Your task to perform on an android device: What is the news today? Image 0: 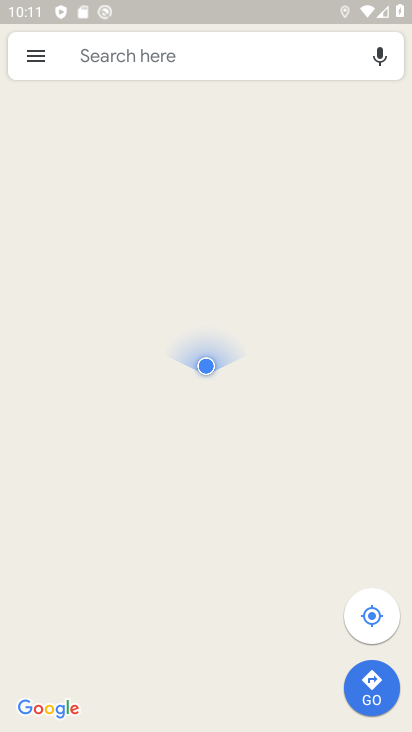
Step 0: press home button
Your task to perform on an android device: What is the news today? Image 1: 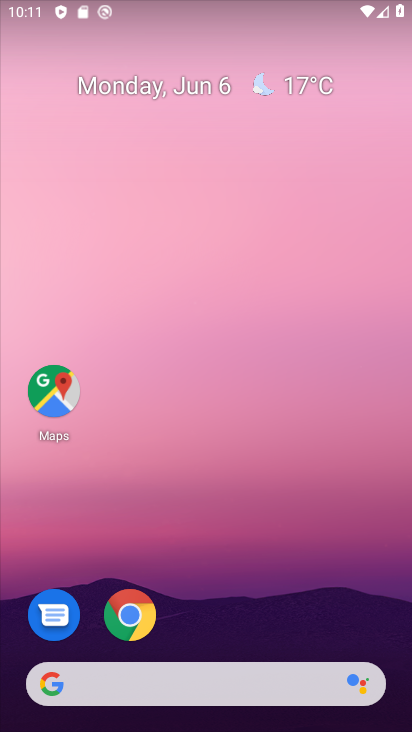
Step 1: task complete